Your task to perform on an android device: Go to display settings Image 0: 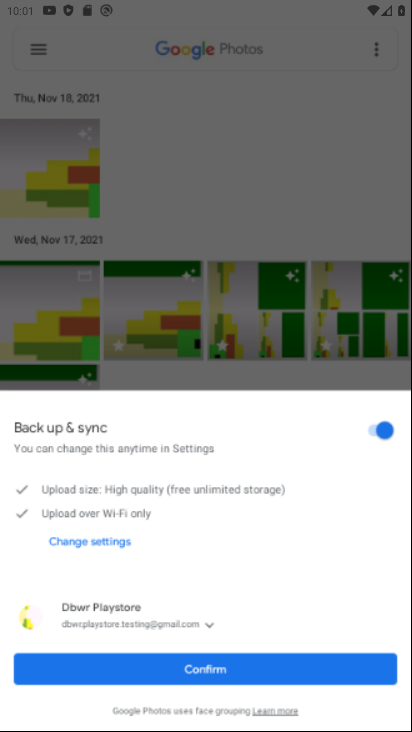
Step 0: press home button
Your task to perform on an android device: Go to display settings Image 1: 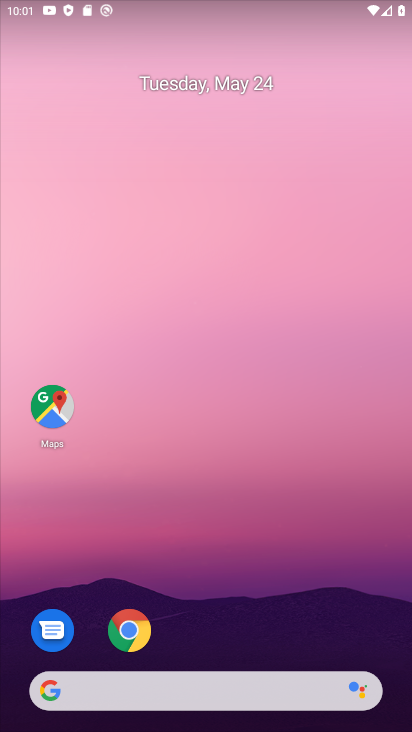
Step 1: drag from (215, 656) to (261, 95)
Your task to perform on an android device: Go to display settings Image 2: 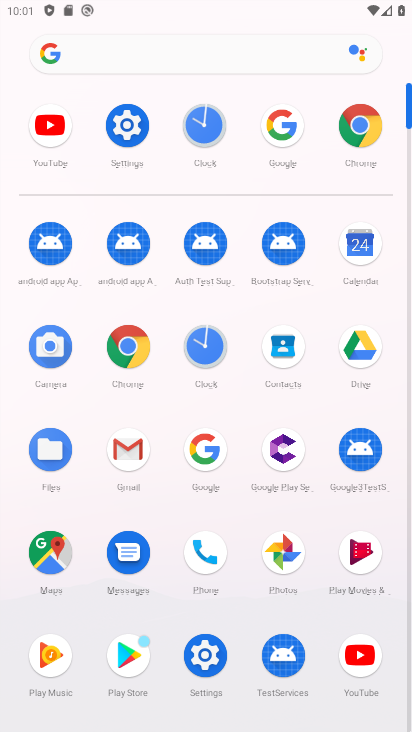
Step 2: click (125, 118)
Your task to perform on an android device: Go to display settings Image 3: 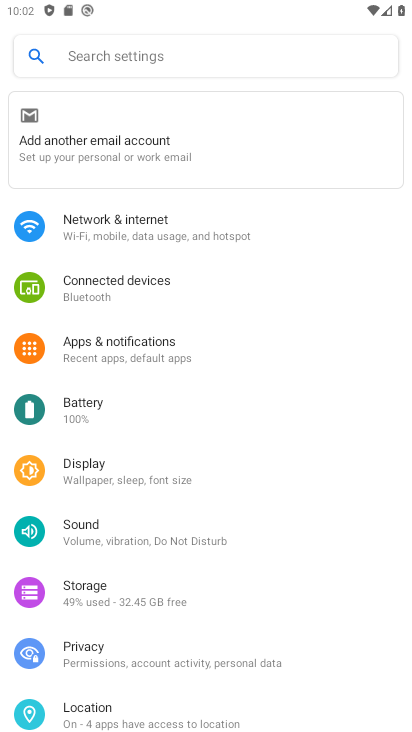
Step 3: click (115, 460)
Your task to perform on an android device: Go to display settings Image 4: 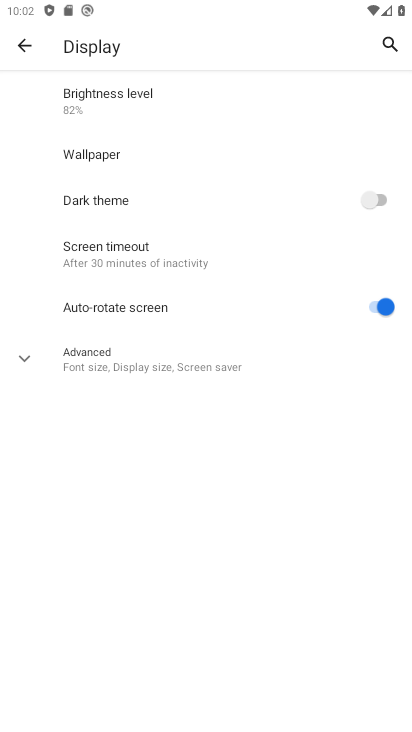
Step 4: click (28, 353)
Your task to perform on an android device: Go to display settings Image 5: 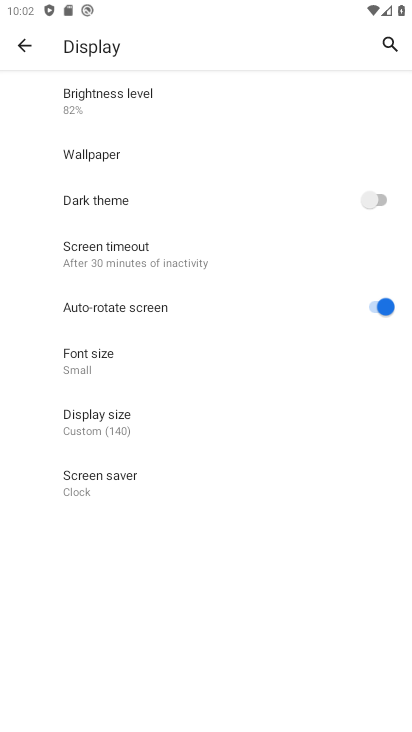
Step 5: task complete